Your task to perform on an android device: Search for Mexican restaurants on Maps Image 0: 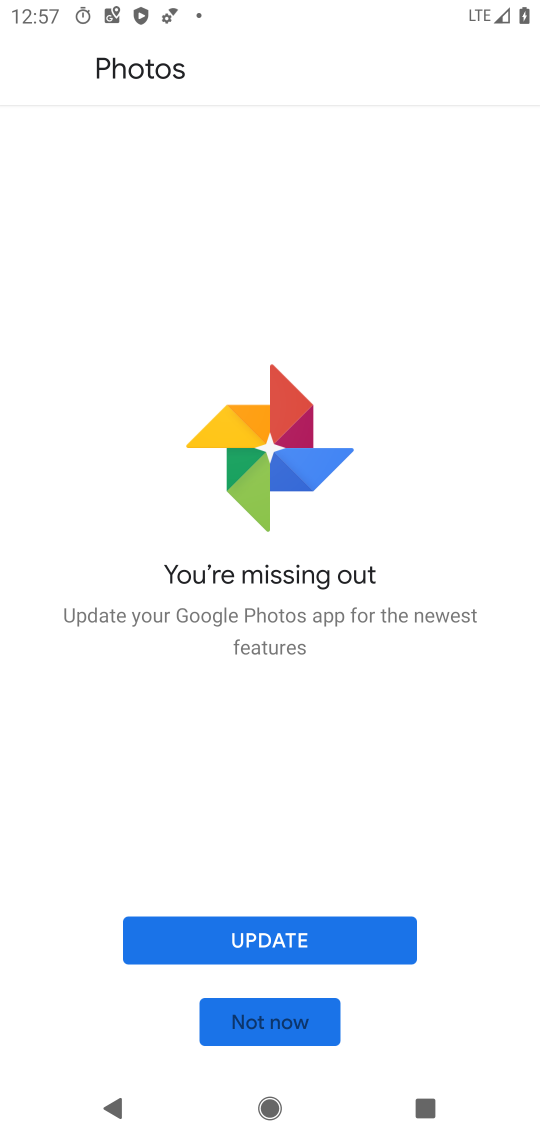
Step 0: press home button
Your task to perform on an android device: Search for Mexican restaurants on Maps Image 1: 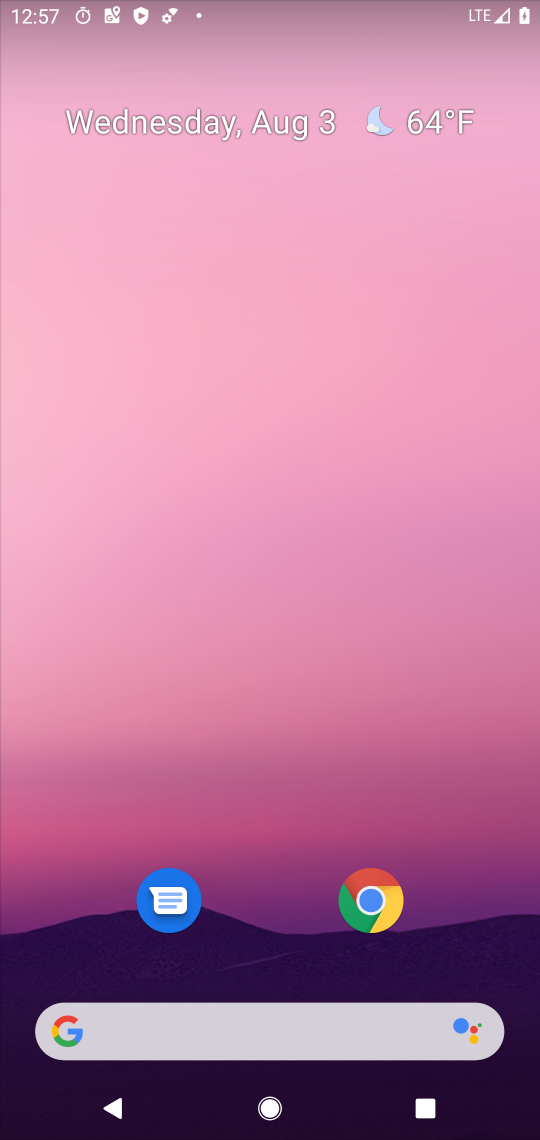
Step 1: drag from (237, 916) to (350, 135)
Your task to perform on an android device: Search for Mexican restaurants on Maps Image 2: 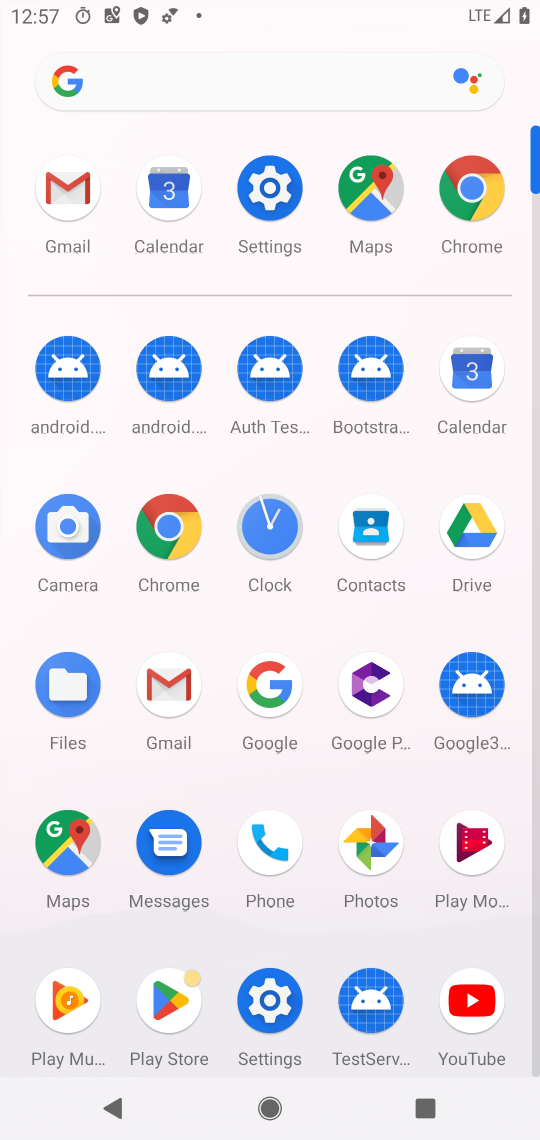
Step 2: click (378, 176)
Your task to perform on an android device: Search for Mexican restaurants on Maps Image 3: 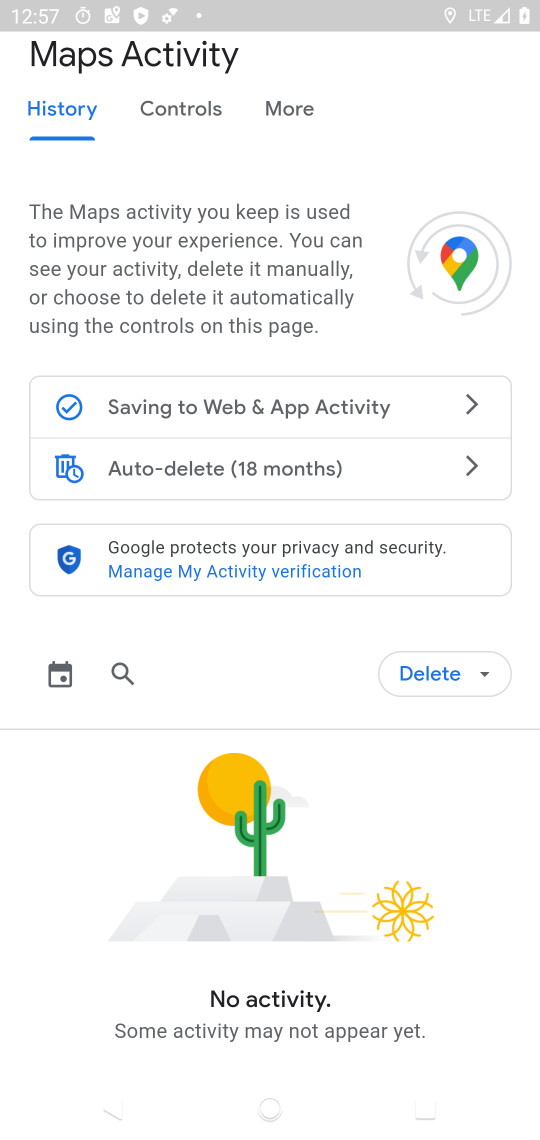
Step 3: press back button
Your task to perform on an android device: Search for Mexican restaurants on Maps Image 4: 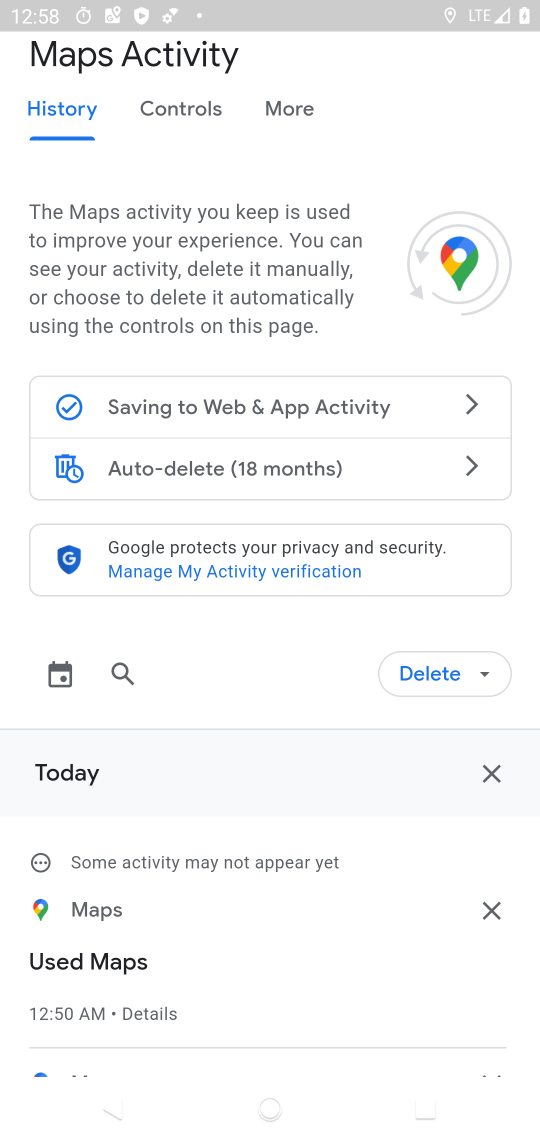
Step 4: press home button
Your task to perform on an android device: Search for Mexican restaurants on Maps Image 5: 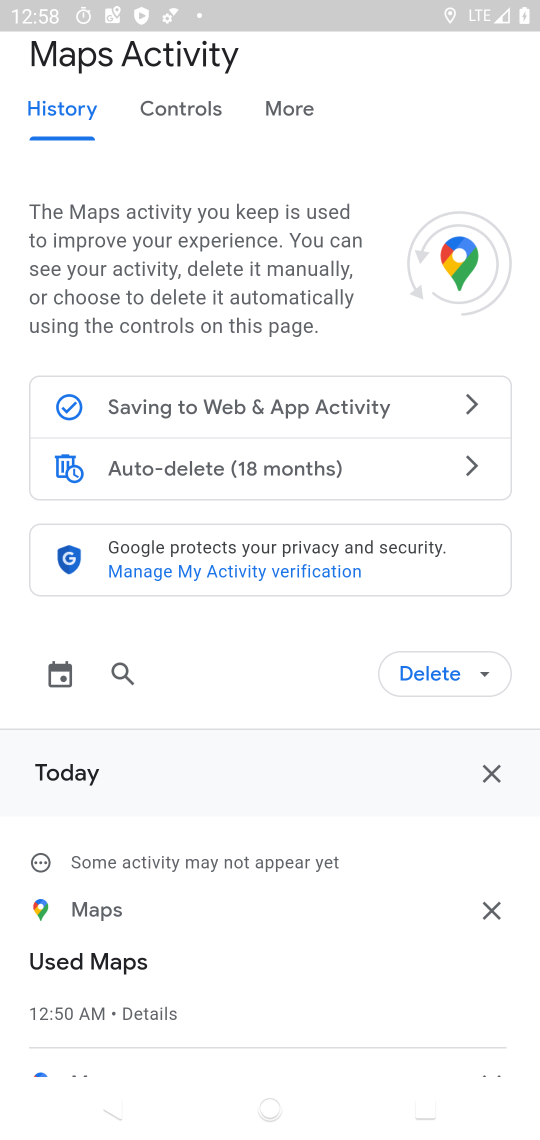
Step 5: press home button
Your task to perform on an android device: Search for Mexican restaurants on Maps Image 6: 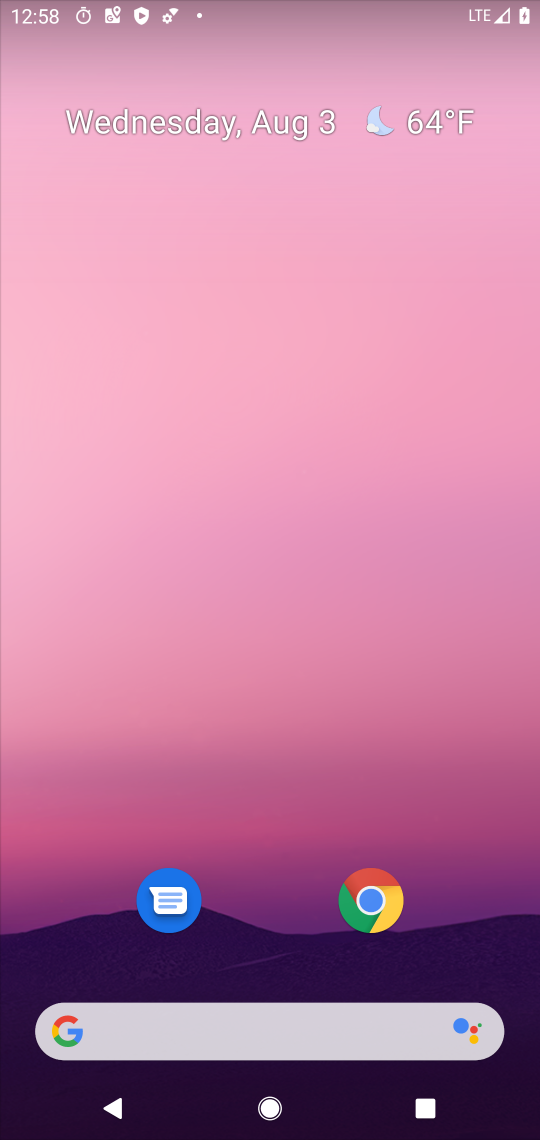
Step 6: drag from (267, 964) to (312, 90)
Your task to perform on an android device: Search for Mexican restaurants on Maps Image 7: 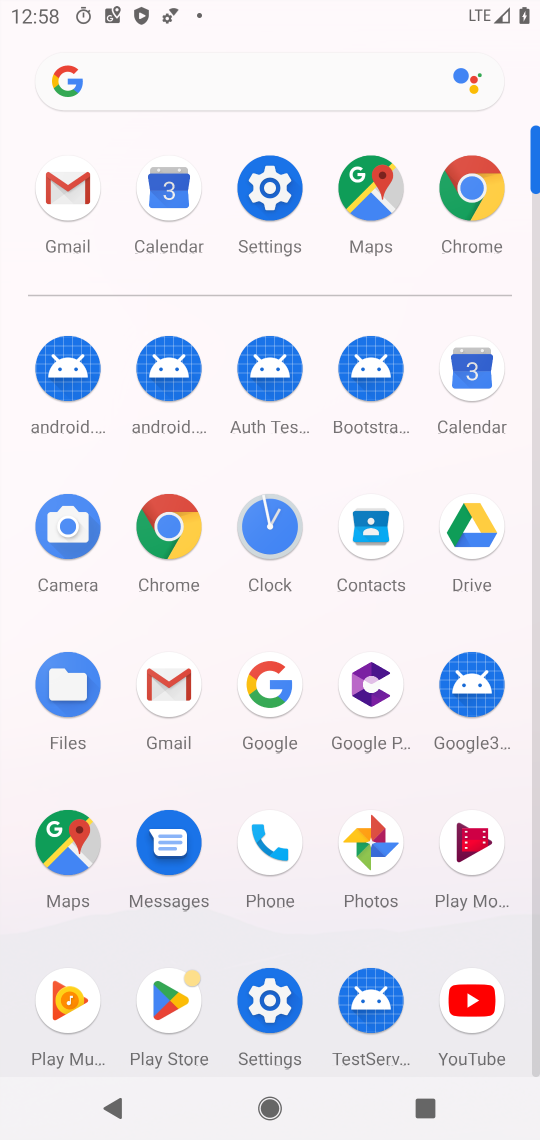
Step 7: click (352, 186)
Your task to perform on an android device: Search for Mexican restaurants on Maps Image 8: 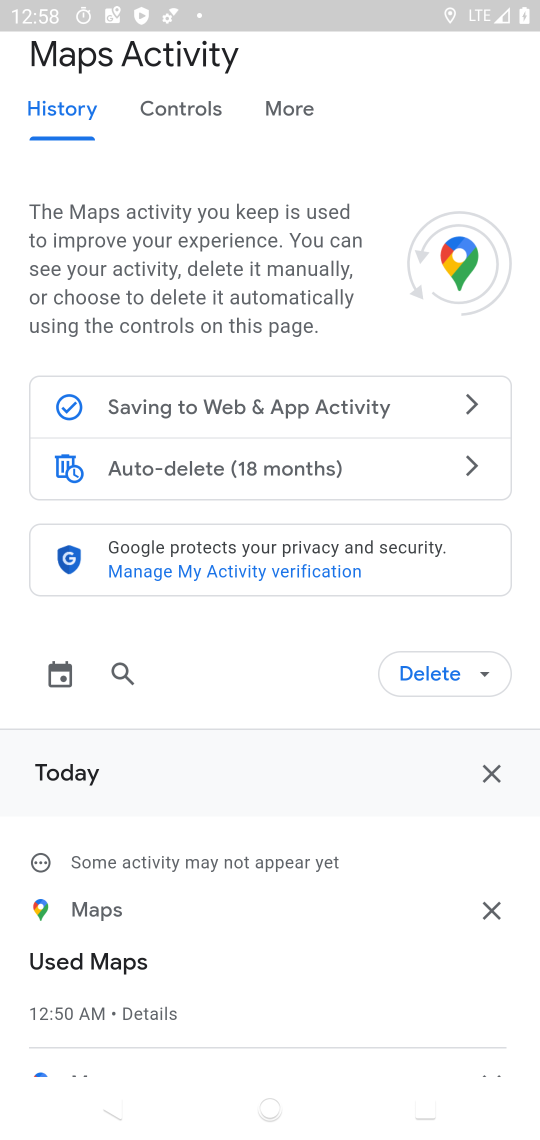
Step 8: press back button
Your task to perform on an android device: Search for Mexican restaurants on Maps Image 9: 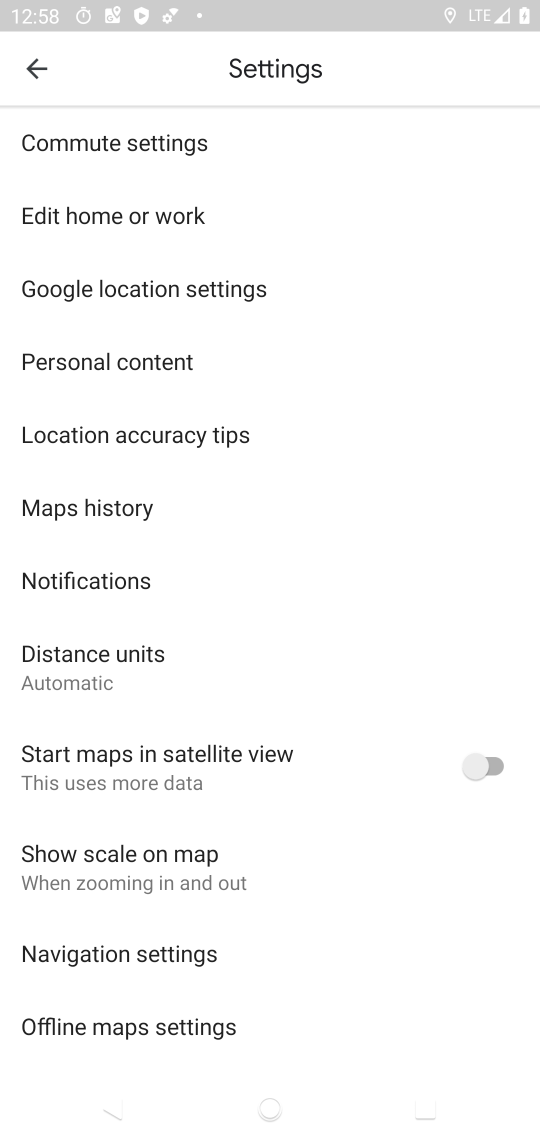
Step 9: press back button
Your task to perform on an android device: Search for Mexican restaurants on Maps Image 10: 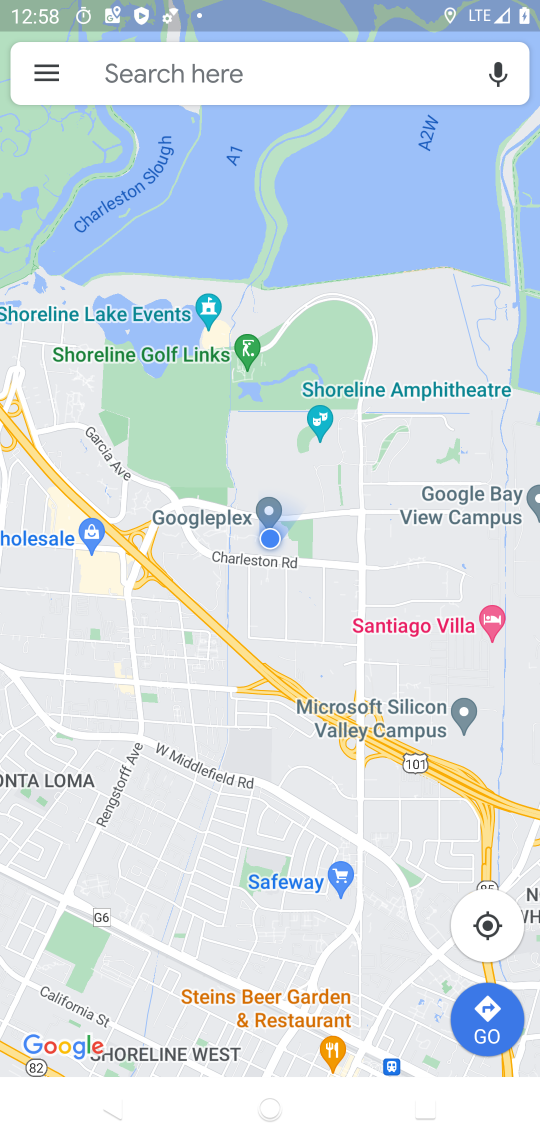
Step 10: click (311, 71)
Your task to perform on an android device: Search for Mexican restaurants on Maps Image 11: 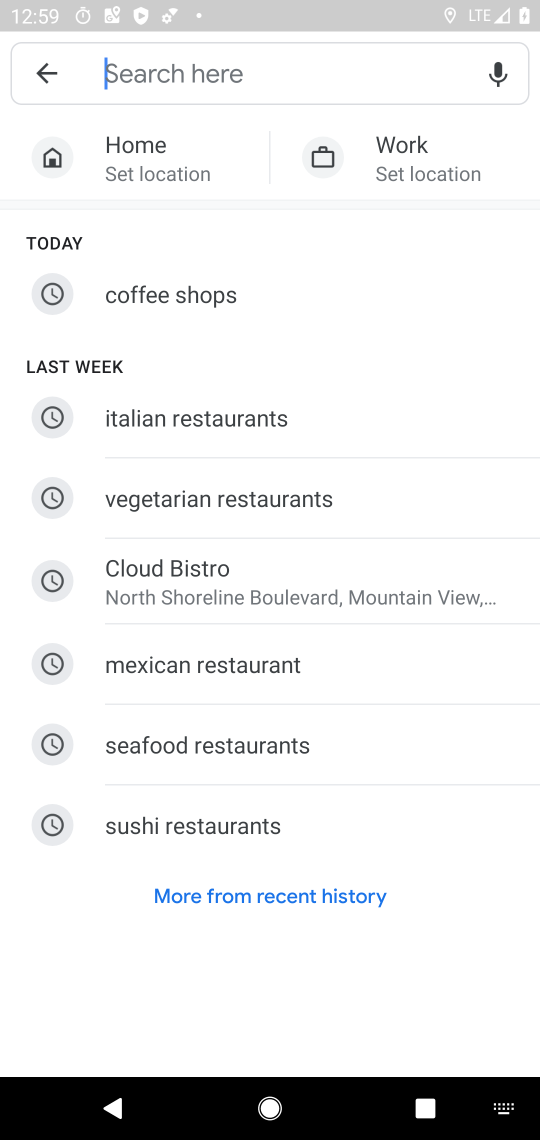
Step 11: type "Mexiican restaurants"
Your task to perform on an android device: Search for Mexican restaurants on Maps Image 12: 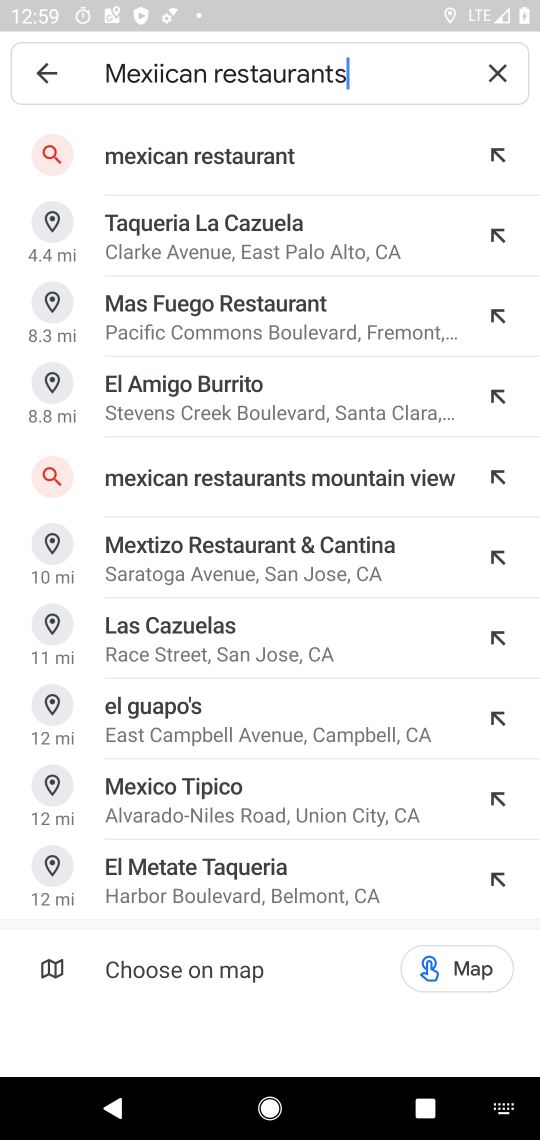
Step 12: press enter
Your task to perform on an android device: Search for Mexican restaurants on Maps Image 13: 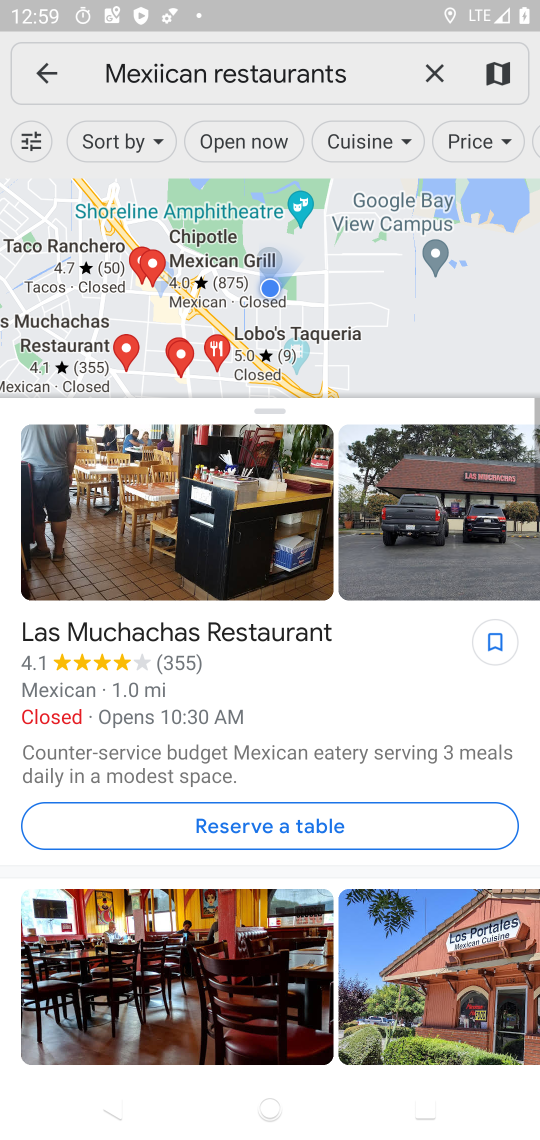
Step 13: task complete